Your task to perform on an android device: toggle show notifications on the lock screen Image 0: 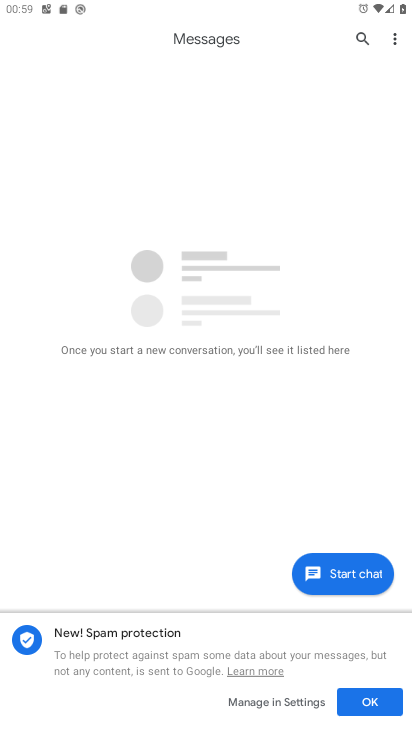
Step 0: press home button
Your task to perform on an android device: toggle show notifications on the lock screen Image 1: 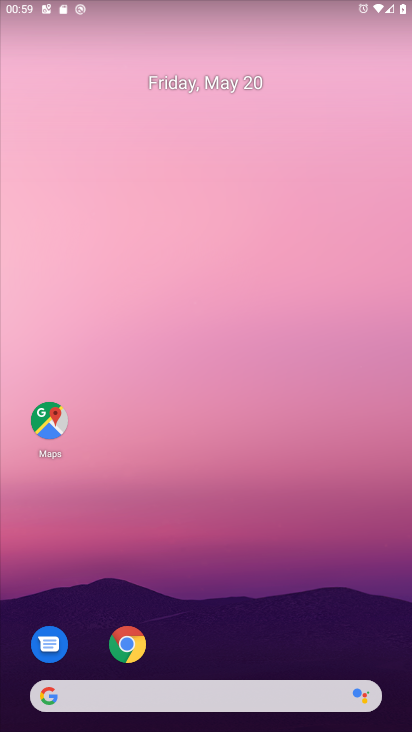
Step 1: drag from (219, 668) to (219, 408)
Your task to perform on an android device: toggle show notifications on the lock screen Image 2: 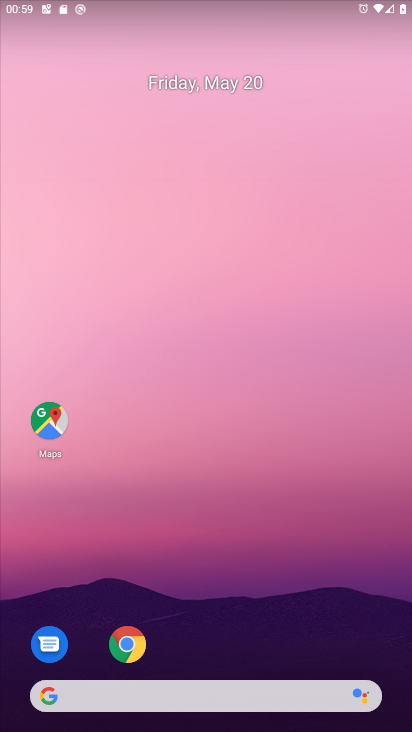
Step 2: drag from (222, 687) to (245, 322)
Your task to perform on an android device: toggle show notifications on the lock screen Image 3: 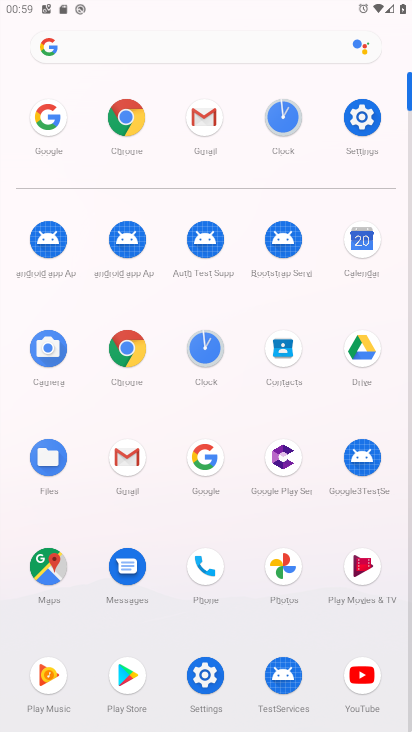
Step 3: click (212, 679)
Your task to perform on an android device: toggle show notifications on the lock screen Image 4: 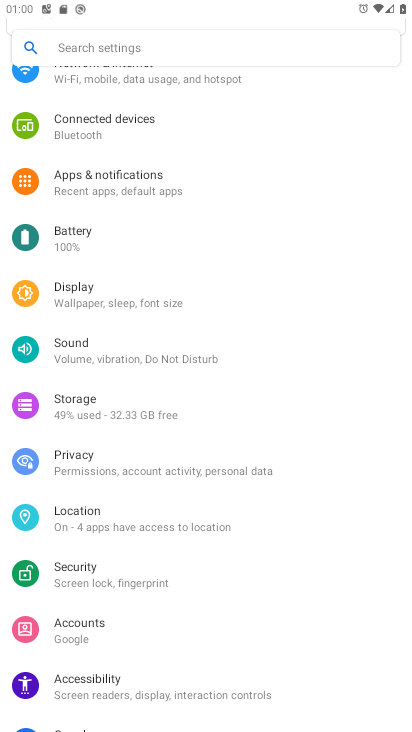
Step 4: click (87, 463)
Your task to perform on an android device: toggle show notifications on the lock screen Image 5: 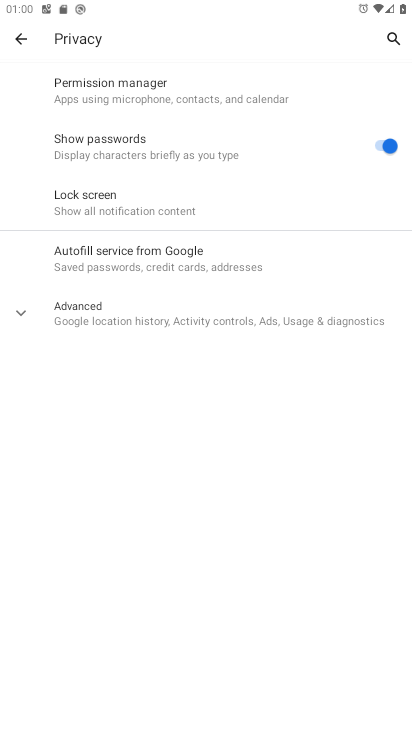
Step 5: click (152, 205)
Your task to perform on an android device: toggle show notifications on the lock screen Image 6: 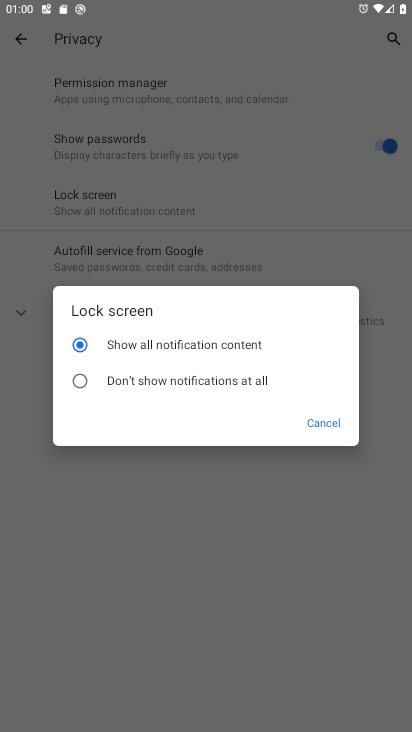
Step 6: click (159, 378)
Your task to perform on an android device: toggle show notifications on the lock screen Image 7: 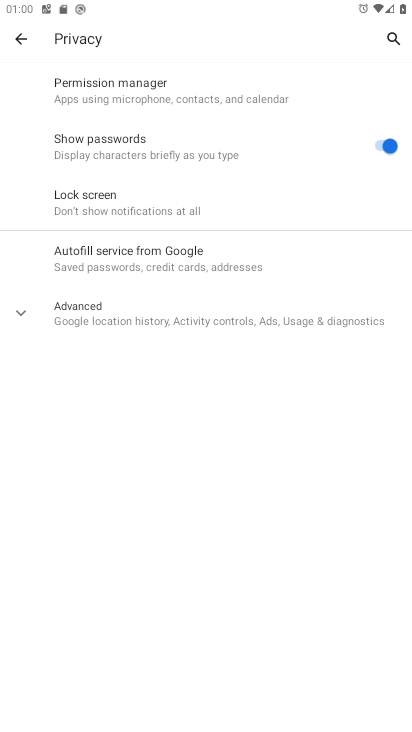
Step 7: task complete